Your task to perform on an android device: Open Google Chrome Image 0: 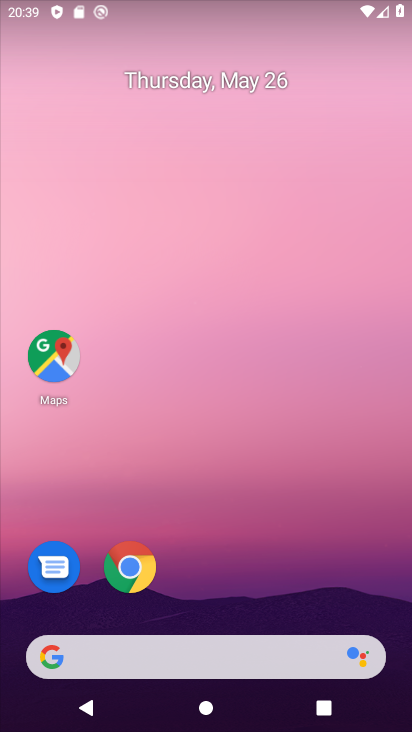
Step 0: drag from (237, 619) to (252, 209)
Your task to perform on an android device: Open Google Chrome Image 1: 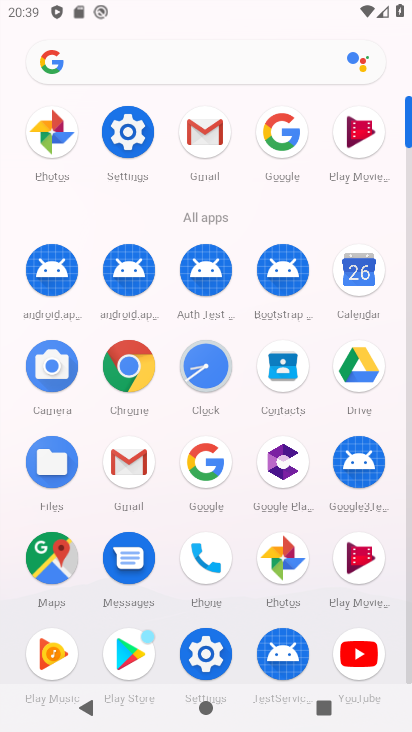
Step 1: click (136, 361)
Your task to perform on an android device: Open Google Chrome Image 2: 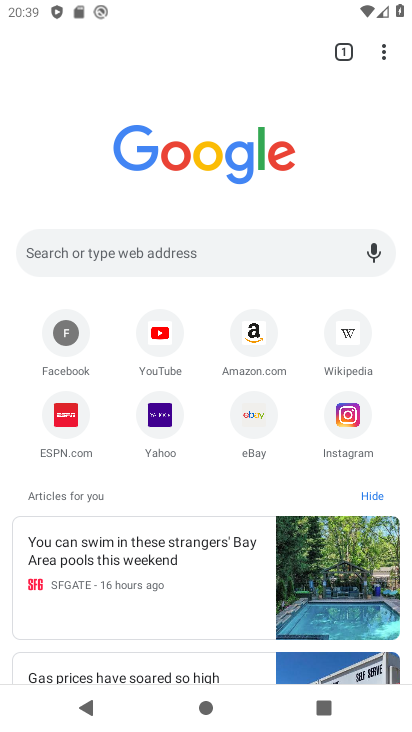
Step 2: task complete